Your task to perform on an android device: Check the weather Image 0: 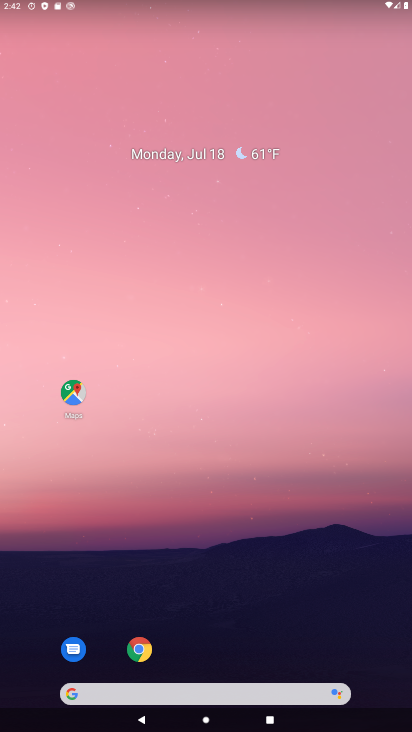
Step 0: click (130, 690)
Your task to perform on an android device: Check the weather Image 1: 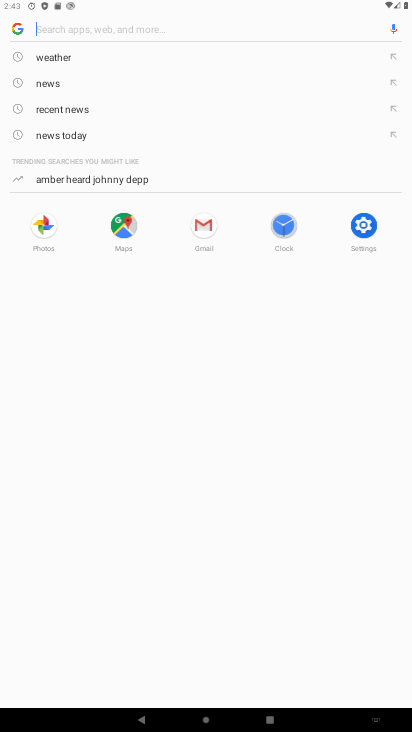
Step 1: click (62, 43)
Your task to perform on an android device: Check the weather Image 2: 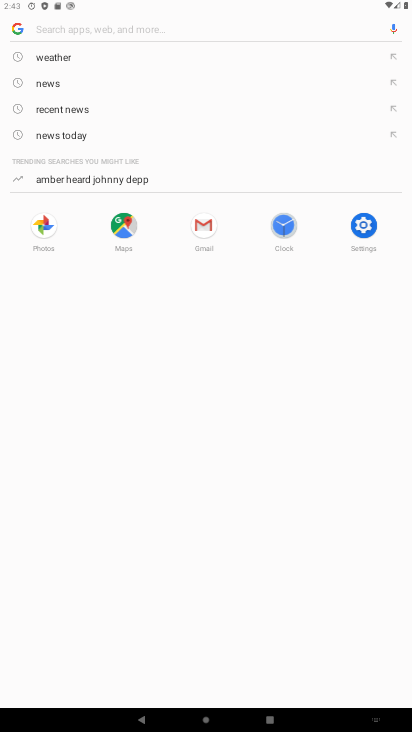
Step 2: click (49, 56)
Your task to perform on an android device: Check the weather Image 3: 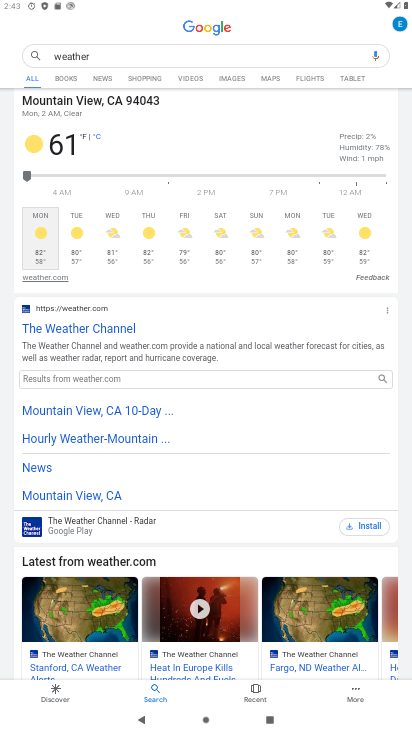
Step 3: task complete